Your task to perform on an android device: create a new album in the google photos Image 0: 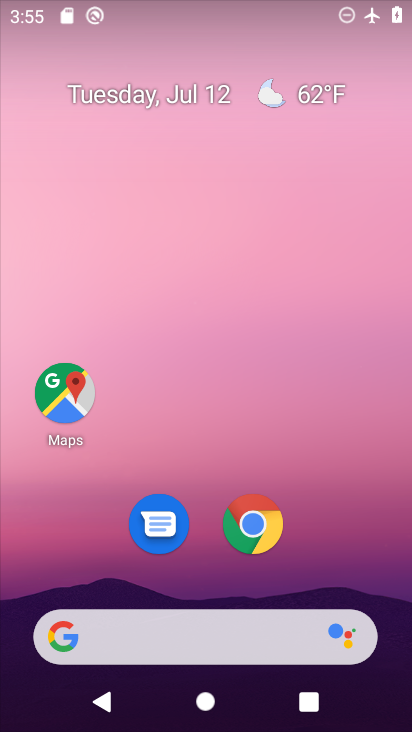
Step 0: click (229, 647)
Your task to perform on an android device: create a new album in the google photos Image 1: 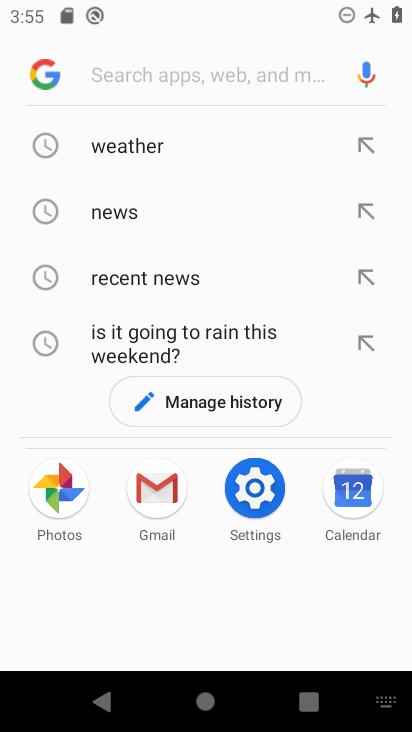
Step 1: click (113, 146)
Your task to perform on an android device: create a new album in the google photos Image 2: 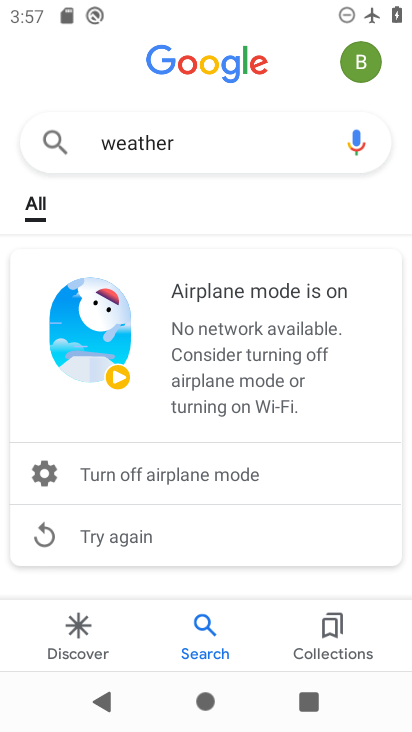
Step 2: task complete